Your task to perform on an android device: Go to accessibility settings Image 0: 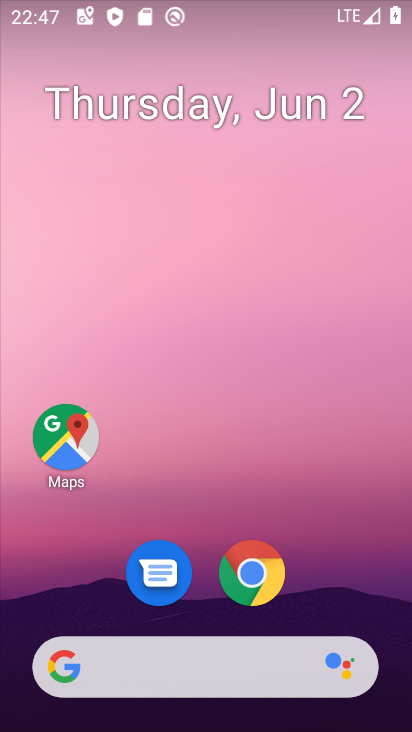
Step 0: drag from (323, 579) to (309, 232)
Your task to perform on an android device: Go to accessibility settings Image 1: 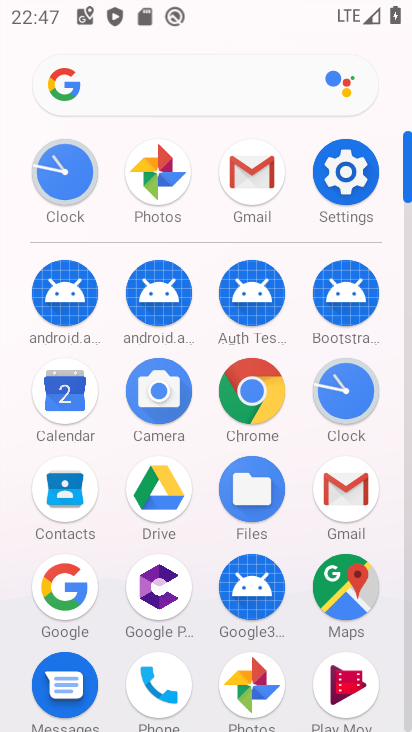
Step 1: click (340, 186)
Your task to perform on an android device: Go to accessibility settings Image 2: 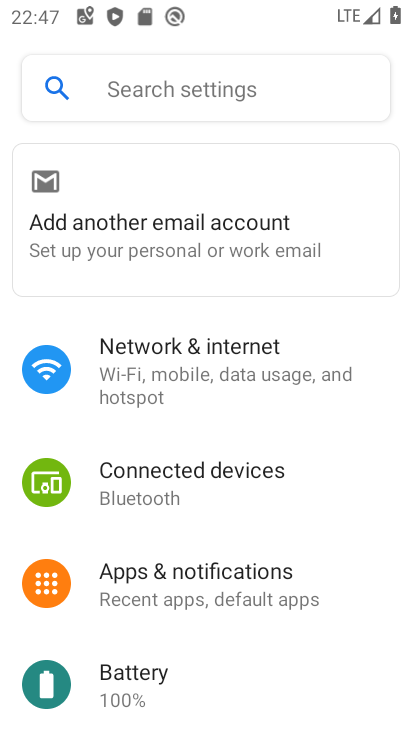
Step 2: drag from (286, 623) to (327, 117)
Your task to perform on an android device: Go to accessibility settings Image 3: 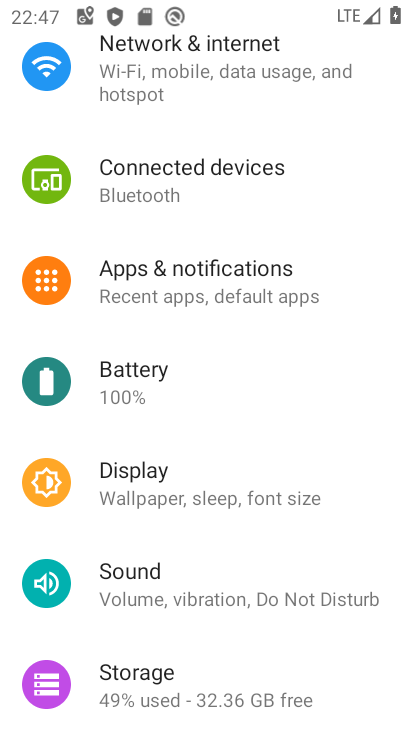
Step 3: drag from (264, 597) to (255, 201)
Your task to perform on an android device: Go to accessibility settings Image 4: 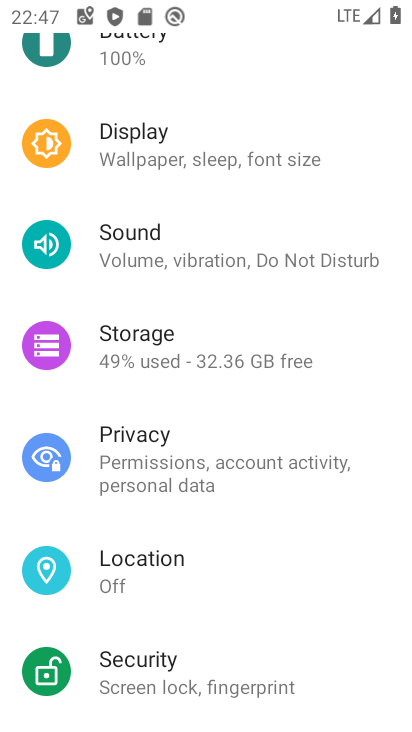
Step 4: drag from (217, 659) to (263, 283)
Your task to perform on an android device: Go to accessibility settings Image 5: 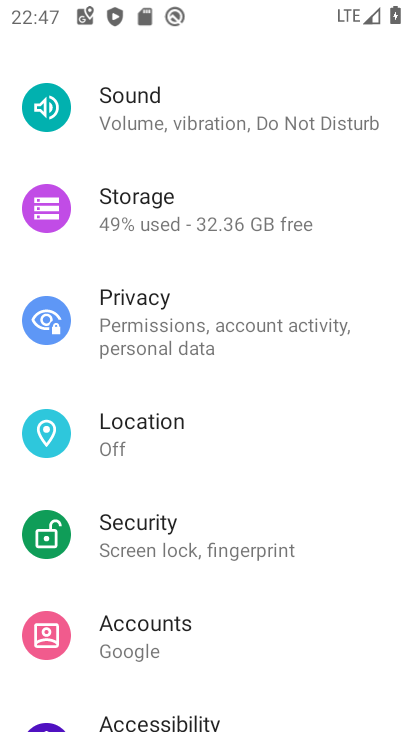
Step 5: drag from (218, 698) to (230, 286)
Your task to perform on an android device: Go to accessibility settings Image 6: 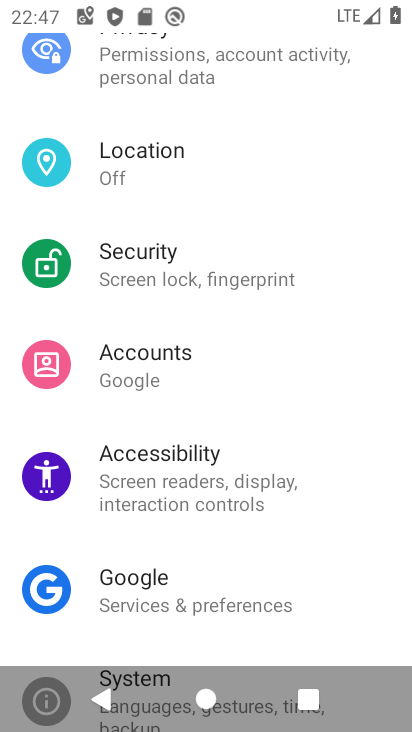
Step 6: click (190, 503)
Your task to perform on an android device: Go to accessibility settings Image 7: 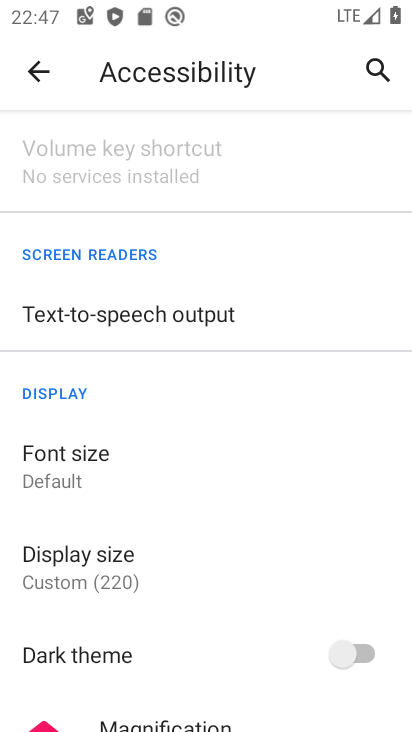
Step 7: task complete